Your task to perform on an android device: see tabs open on other devices in the chrome app Image 0: 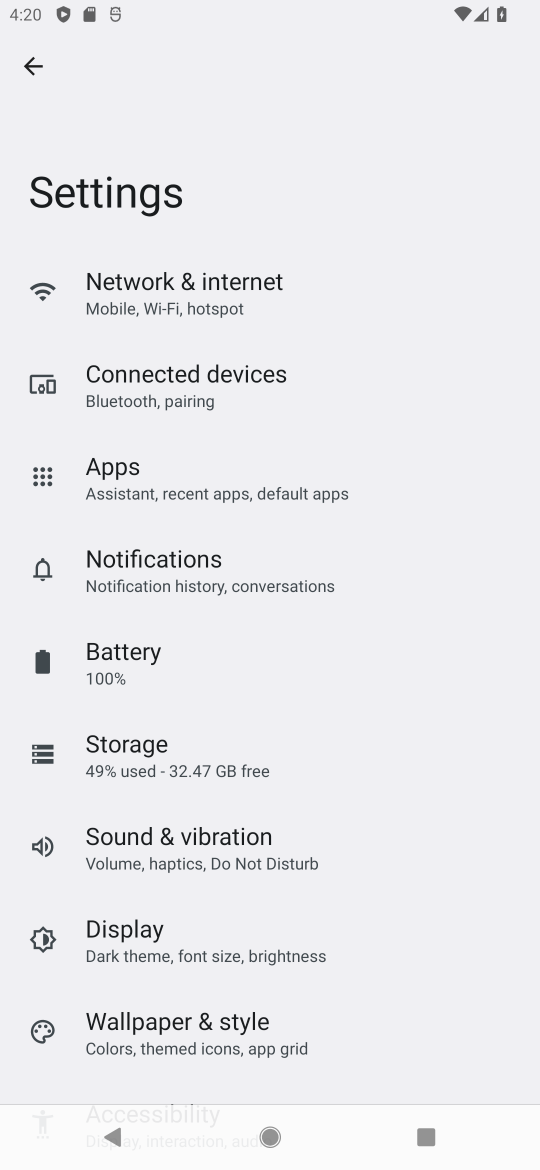
Step 0: press home button
Your task to perform on an android device: see tabs open on other devices in the chrome app Image 1: 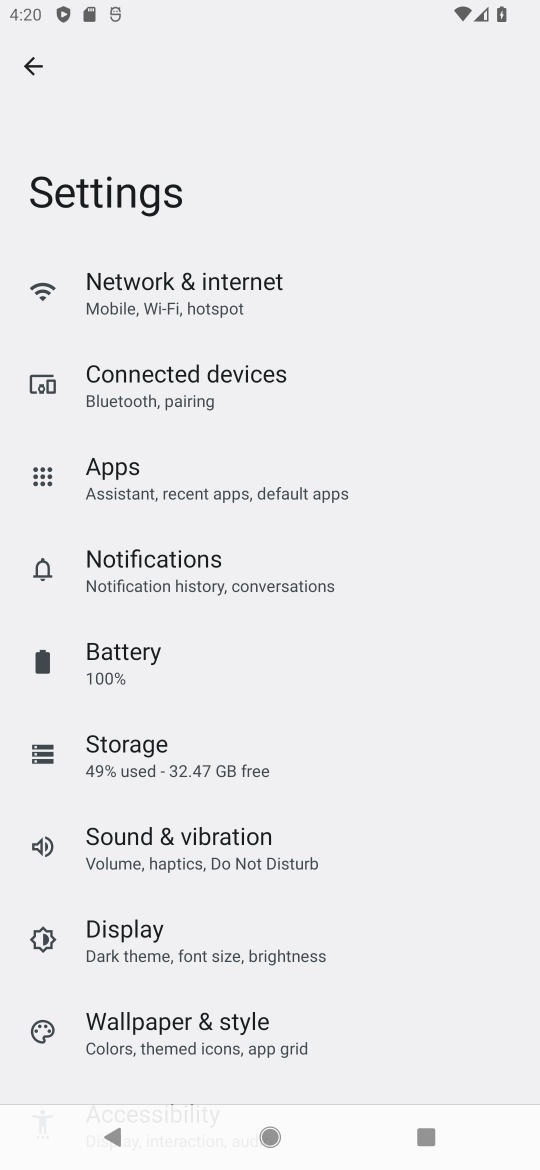
Step 1: press home button
Your task to perform on an android device: see tabs open on other devices in the chrome app Image 2: 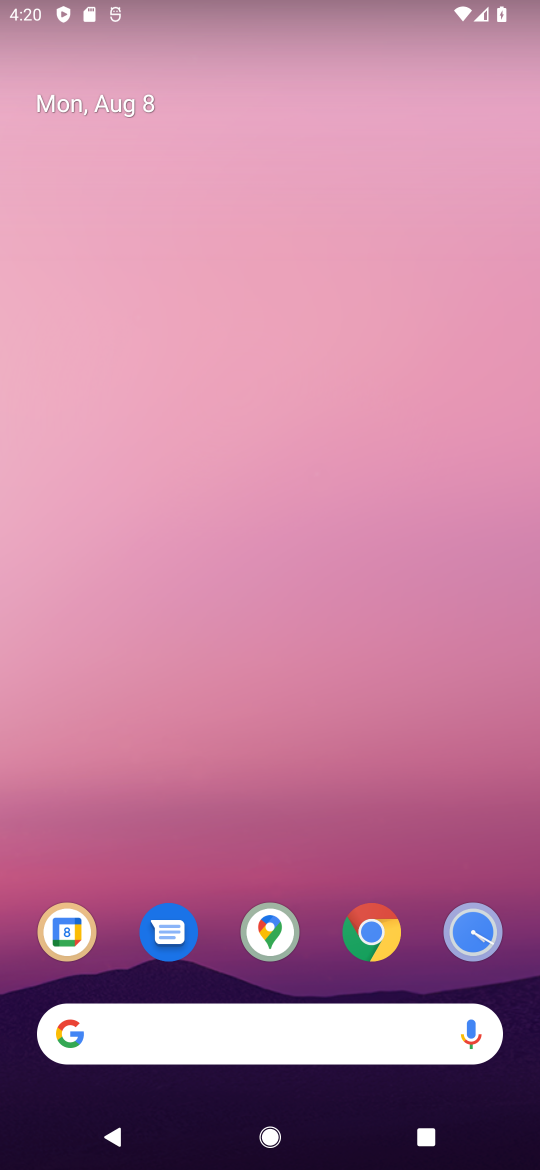
Step 2: click (386, 922)
Your task to perform on an android device: see tabs open on other devices in the chrome app Image 3: 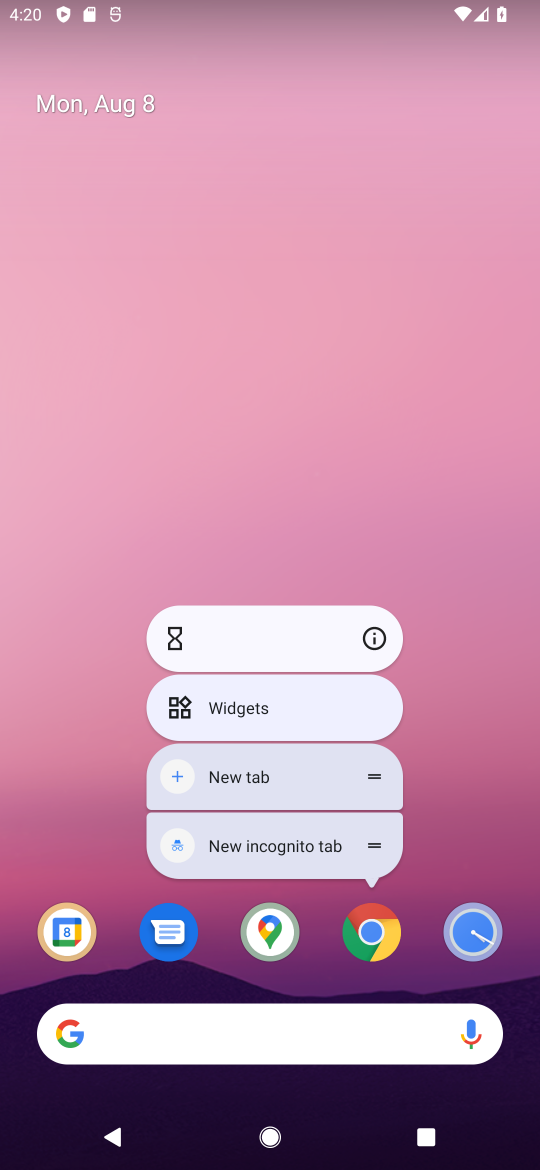
Step 3: click (386, 922)
Your task to perform on an android device: see tabs open on other devices in the chrome app Image 4: 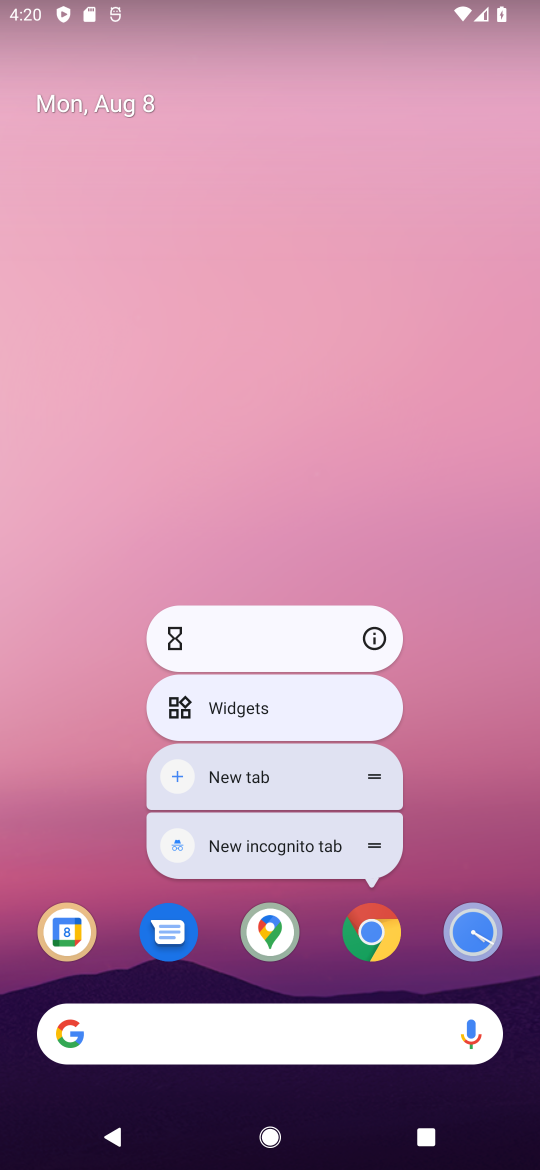
Step 4: click (386, 922)
Your task to perform on an android device: see tabs open on other devices in the chrome app Image 5: 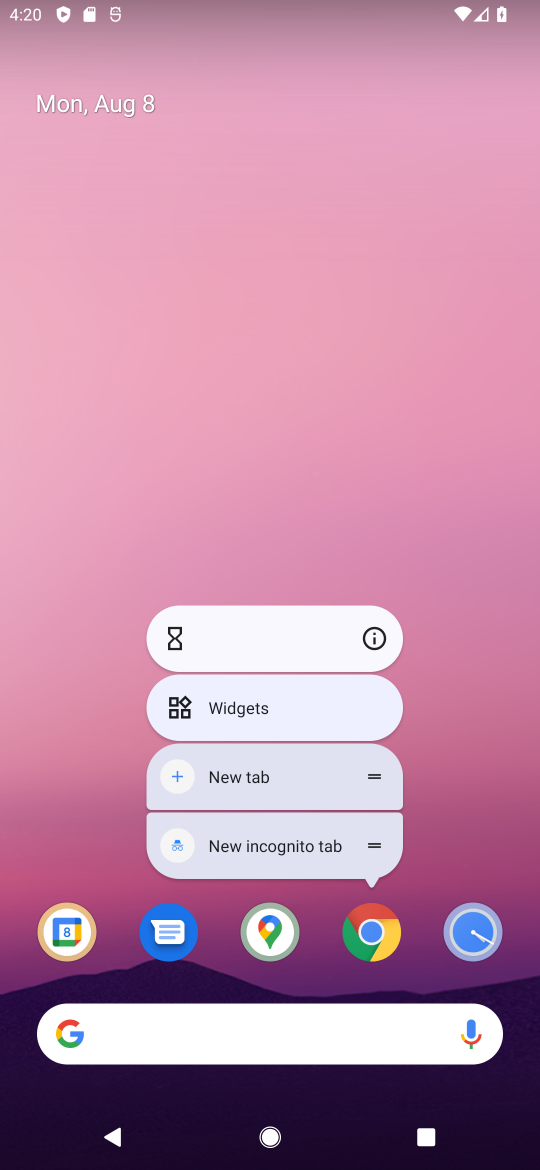
Step 5: click (386, 922)
Your task to perform on an android device: see tabs open on other devices in the chrome app Image 6: 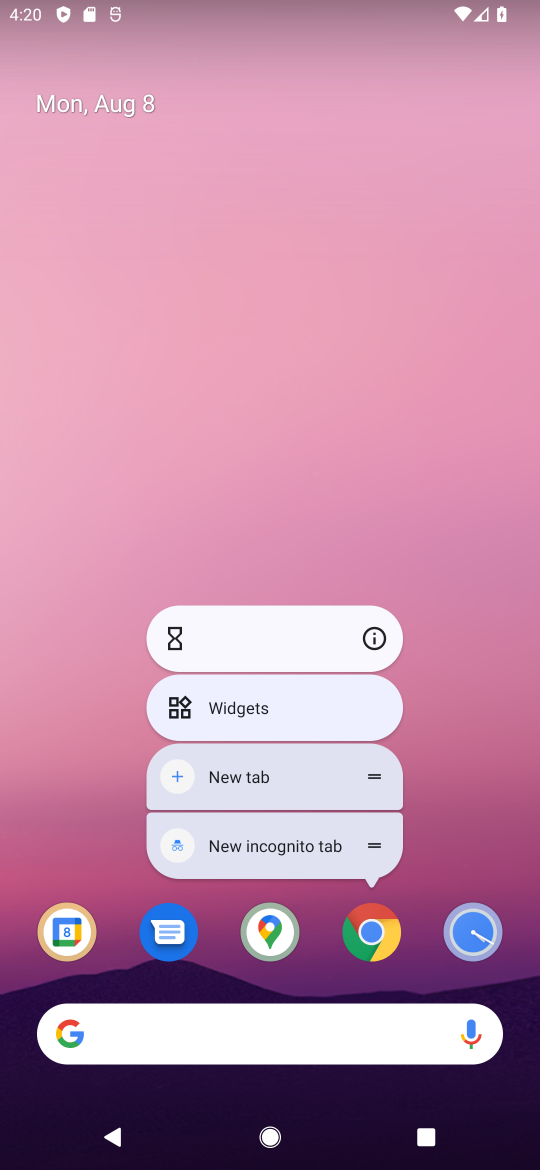
Step 6: click (386, 922)
Your task to perform on an android device: see tabs open on other devices in the chrome app Image 7: 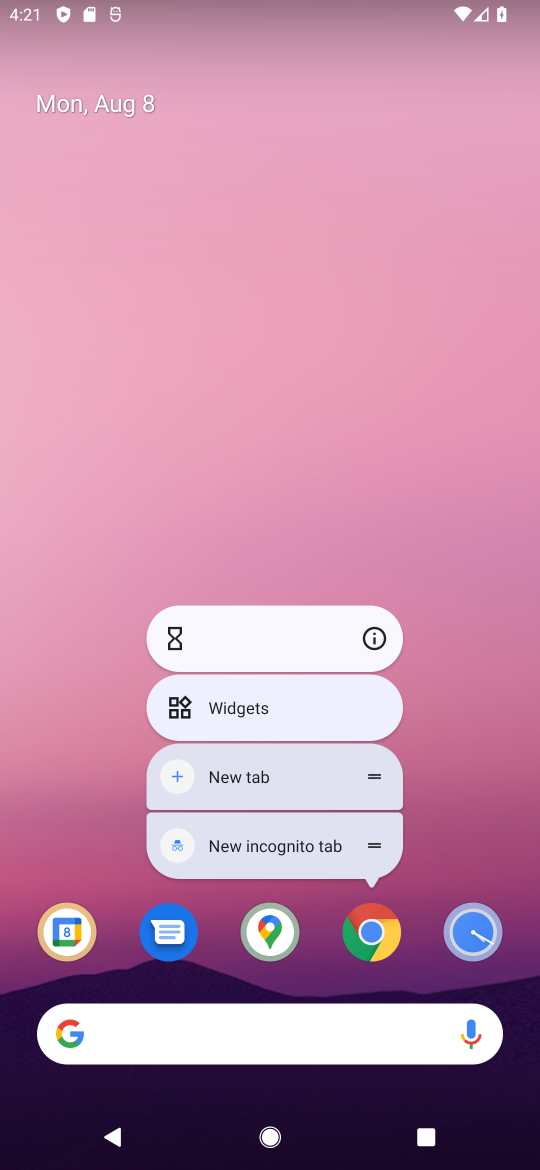
Step 7: click (371, 954)
Your task to perform on an android device: see tabs open on other devices in the chrome app Image 8: 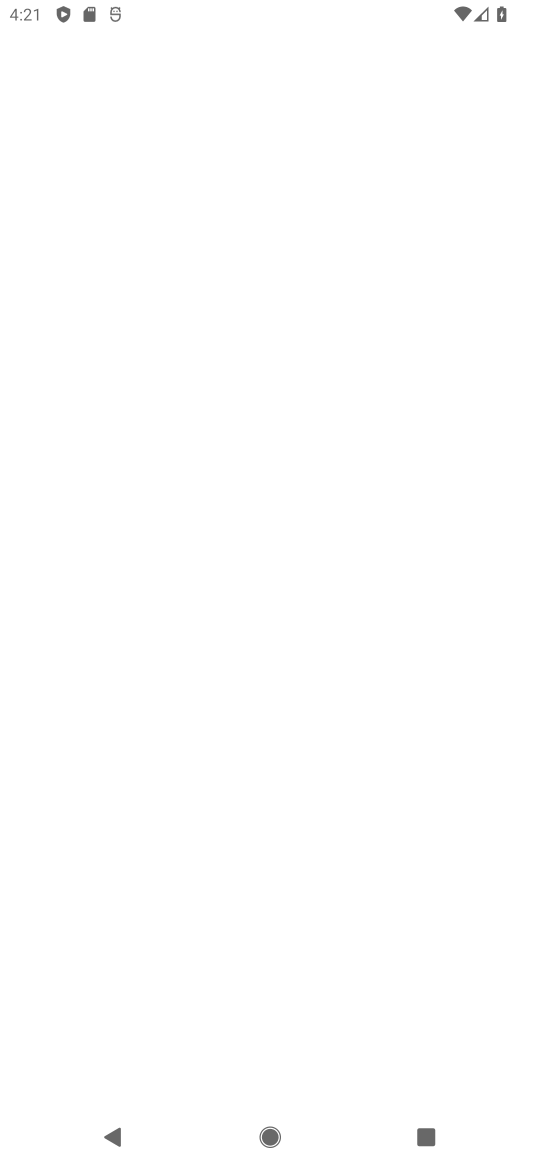
Step 8: click (371, 954)
Your task to perform on an android device: see tabs open on other devices in the chrome app Image 9: 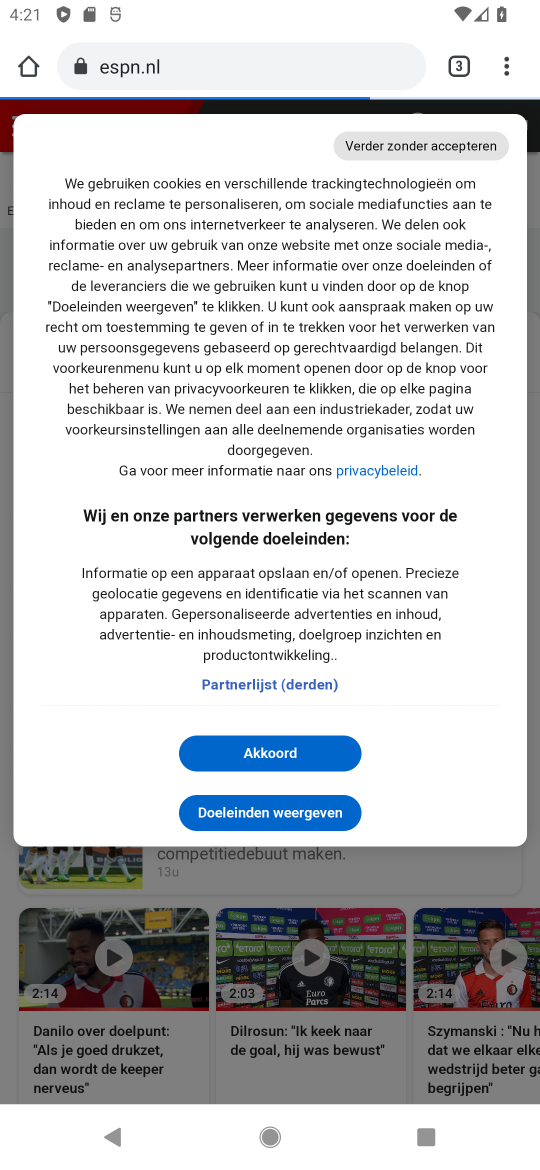
Step 9: click (501, 56)
Your task to perform on an android device: see tabs open on other devices in the chrome app Image 10: 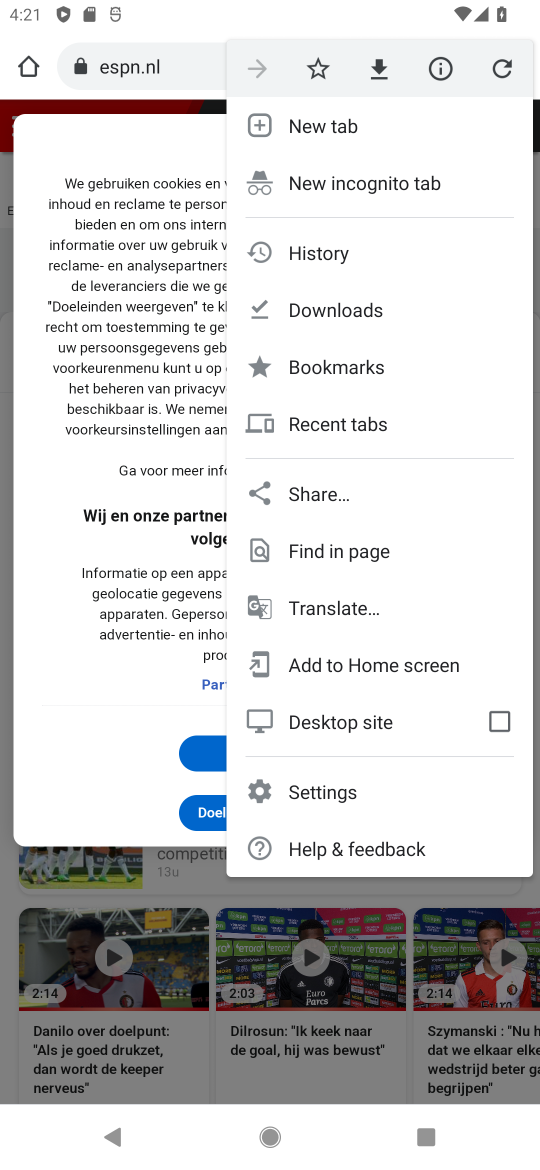
Step 10: click (429, 402)
Your task to perform on an android device: see tabs open on other devices in the chrome app Image 11: 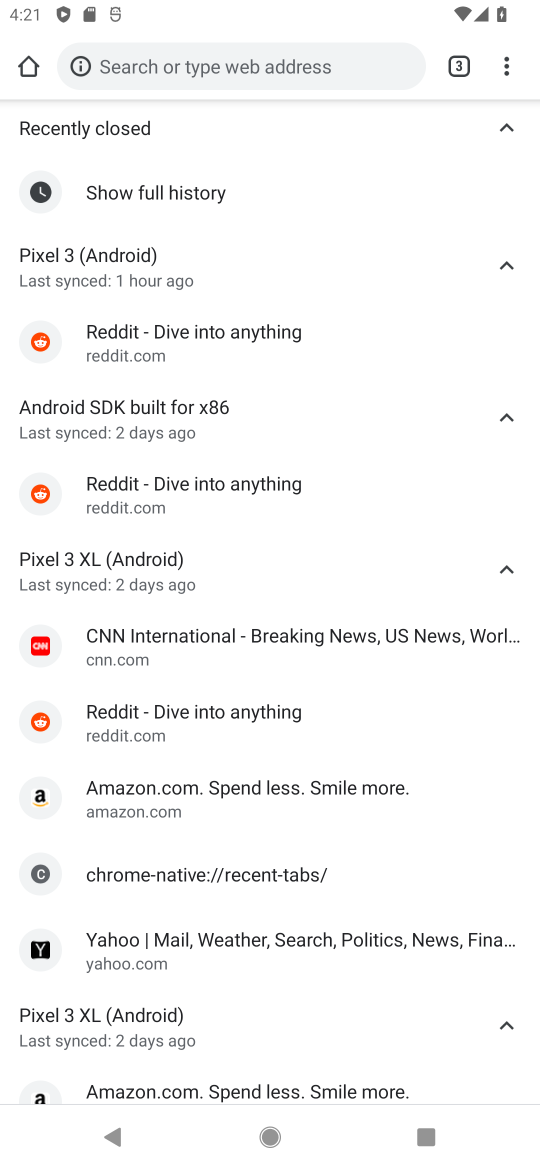
Step 11: task complete